Your task to perform on an android device: set the timer Image 0: 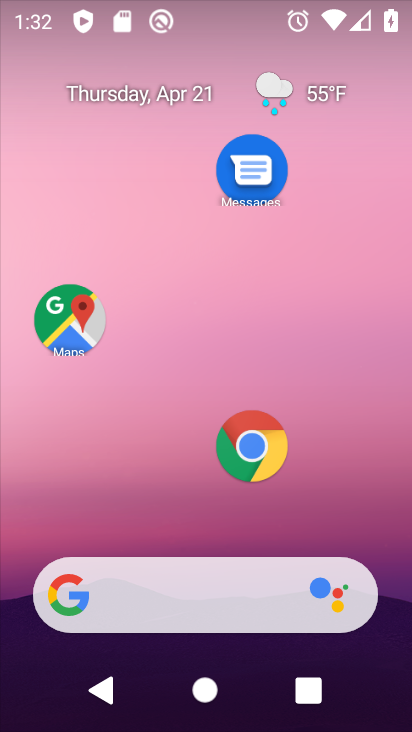
Step 0: drag from (135, 490) to (270, 6)
Your task to perform on an android device: set the timer Image 1: 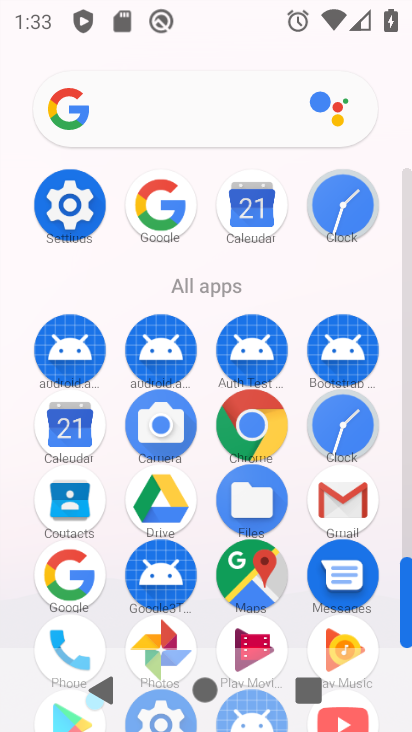
Step 1: click (341, 205)
Your task to perform on an android device: set the timer Image 2: 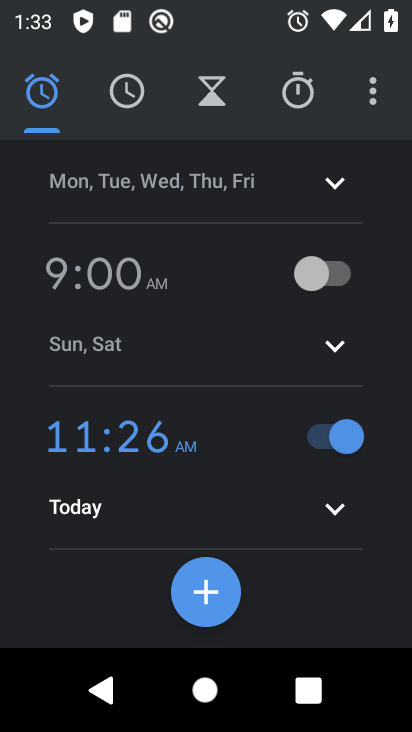
Step 2: click (219, 104)
Your task to perform on an android device: set the timer Image 3: 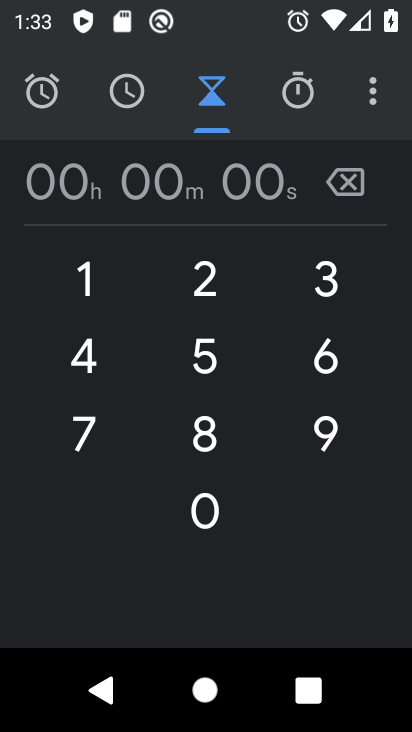
Step 3: type "123"
Your task to perform on an android device: set the timer Image 4: 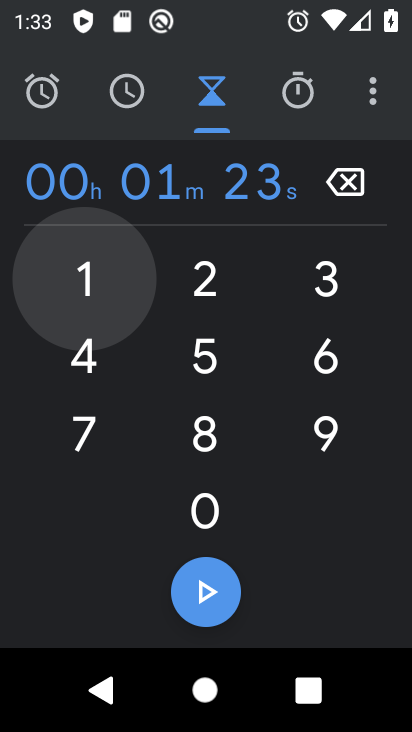
Step 4: task complete